Your task to perform on an android device: Check the weather Image 0: 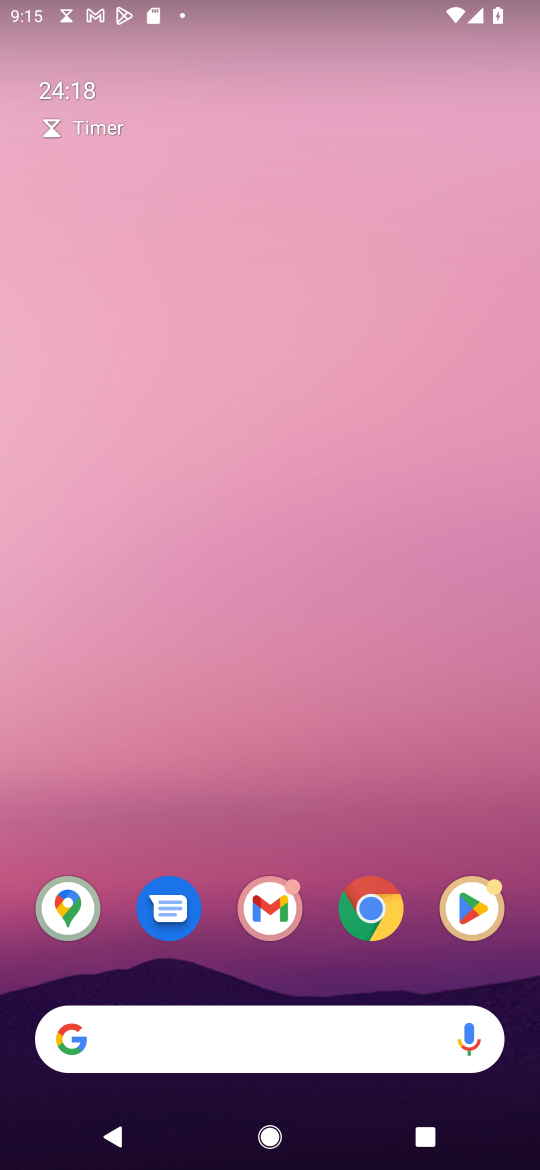
Step 0: drag from (281, 1039) to (286, 380)
Your task to perform on an android device: Check the weather Image 1: 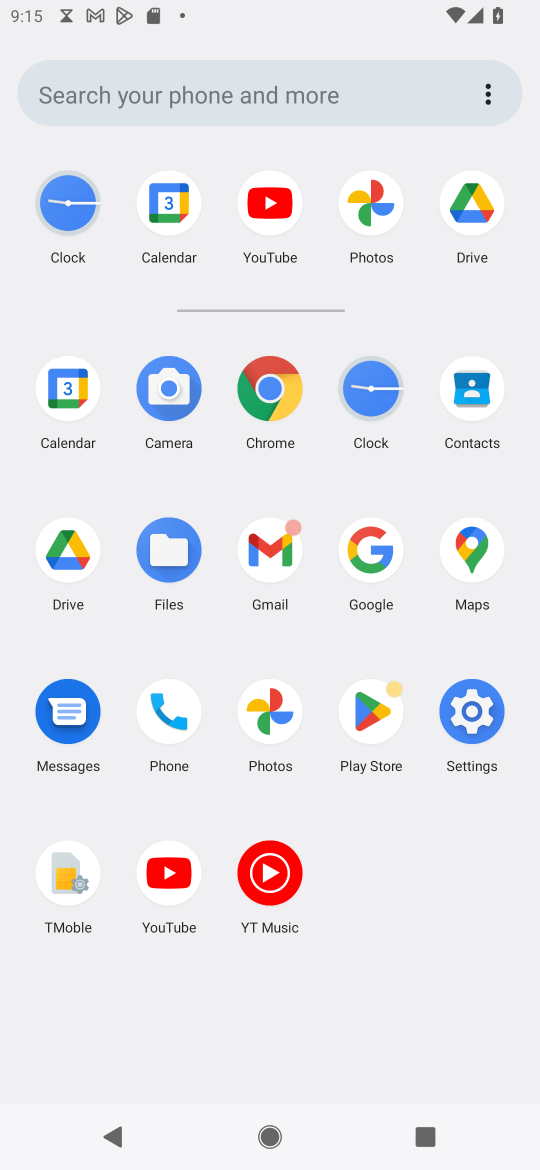
Step 1: click (278, 416)
Your task to perform on an android device: Check the weather Image 2: 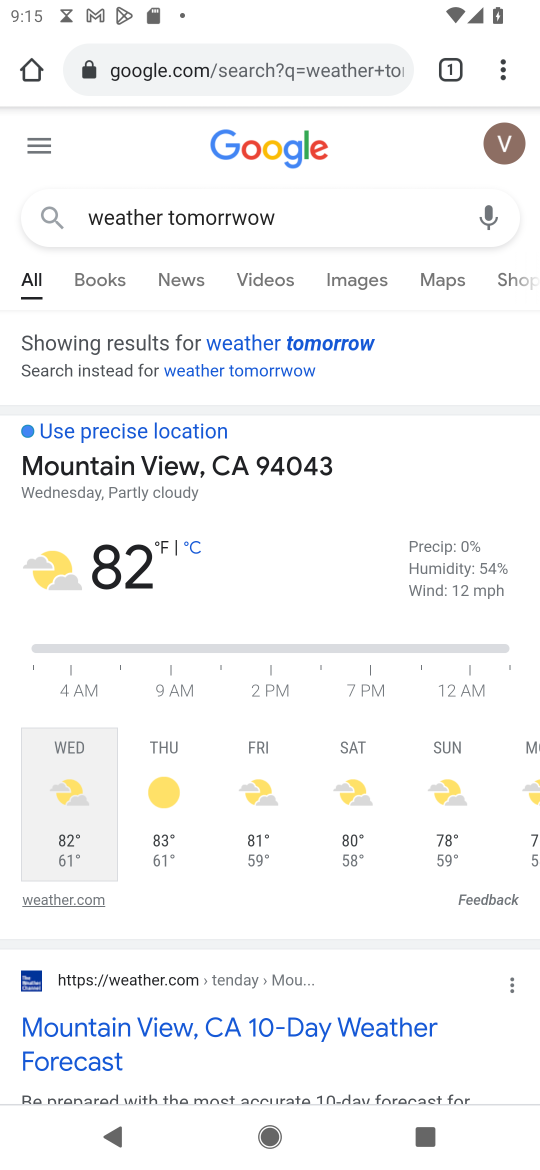
Step 2: click (253, 73)
Your task to perform on an android device: Check the weather Image 3: 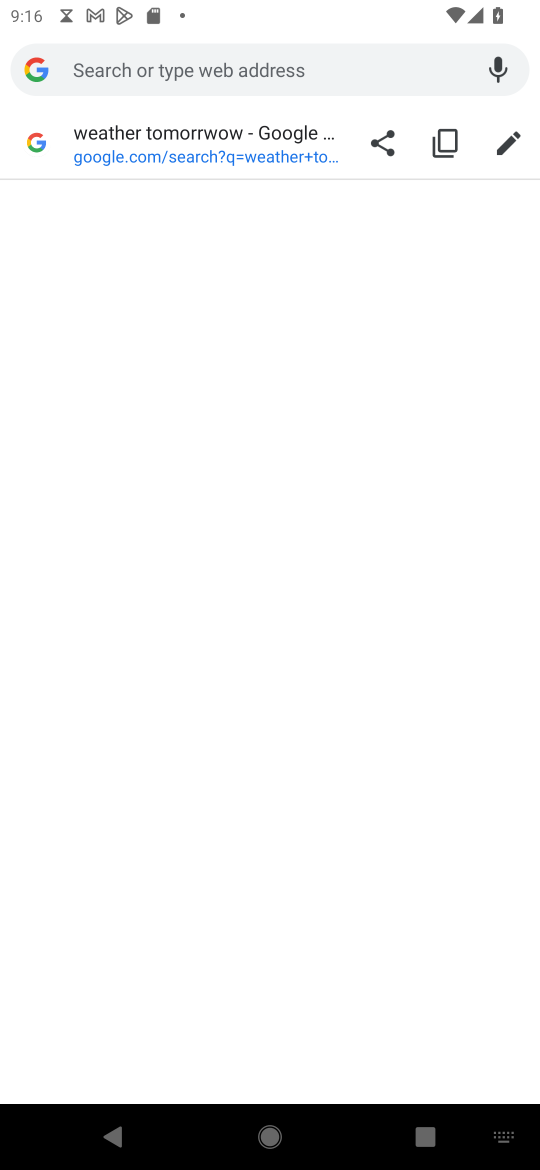
Step 3: type "weather"
Your task to perform on an android device: Check the weather Image 4: 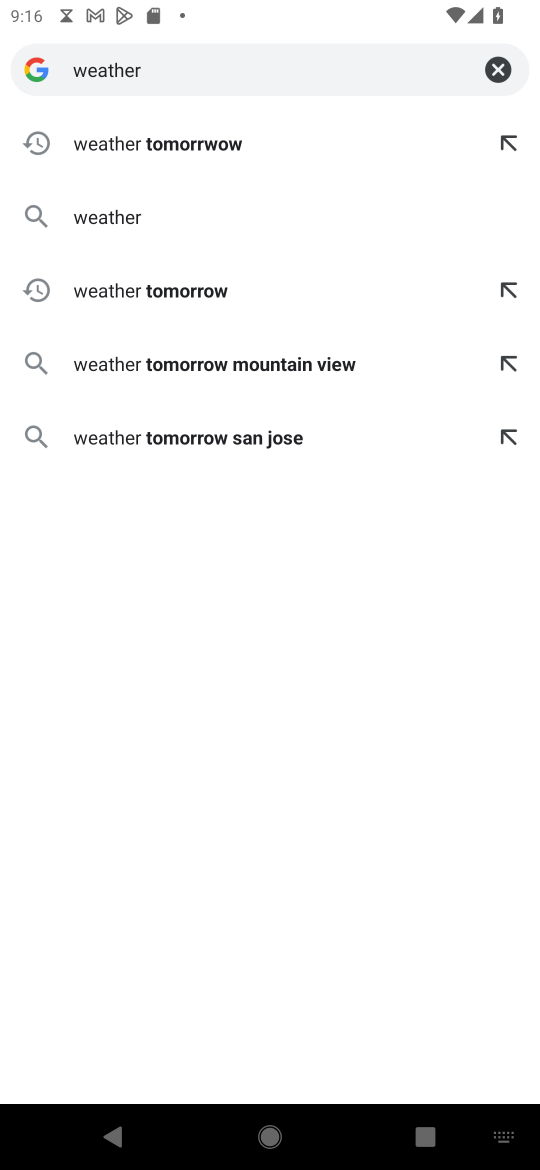
Step 4: click (124, 228)
Your task to perform on an android device: Check the weather Image 5: 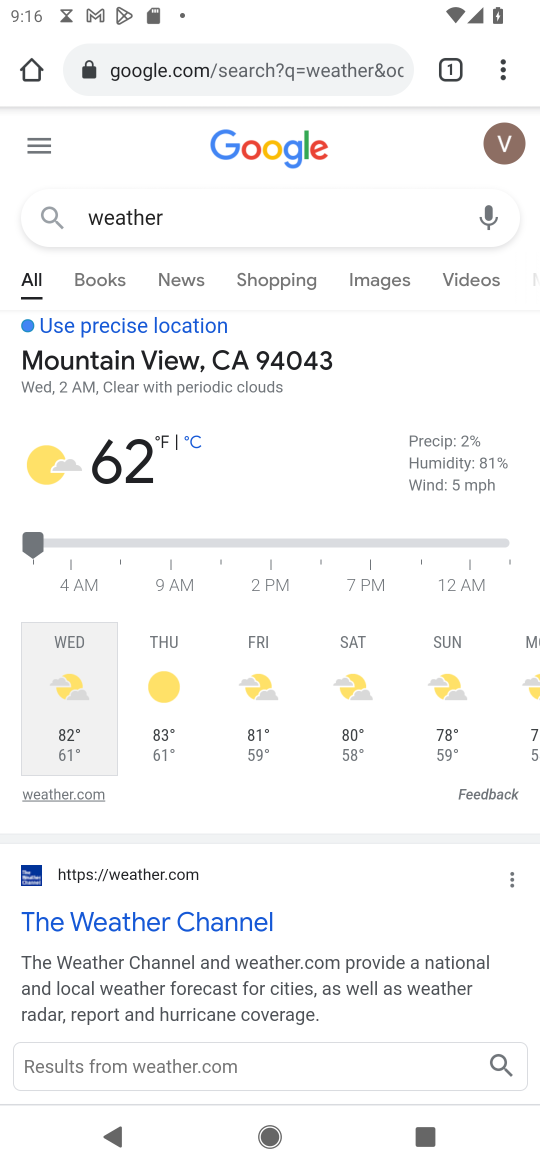
Step 5: task complete